Your task to perform on an android device: read, delete, or share a saved page in the chrome app Image 0: 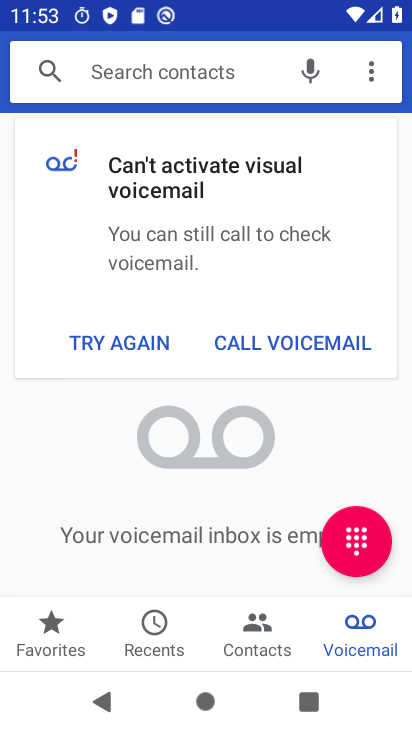
Step 0: press home button
Your task to perform on an android device: read, delete, or share a saved page in the chrome app Image 1: 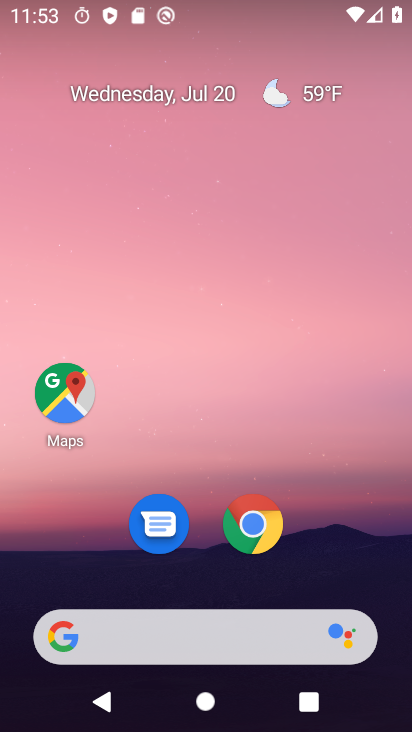
Step 1: click (232, 525)
Your task to perform on an android device: read, delete, or share a saved page in the chrome app Image 2: 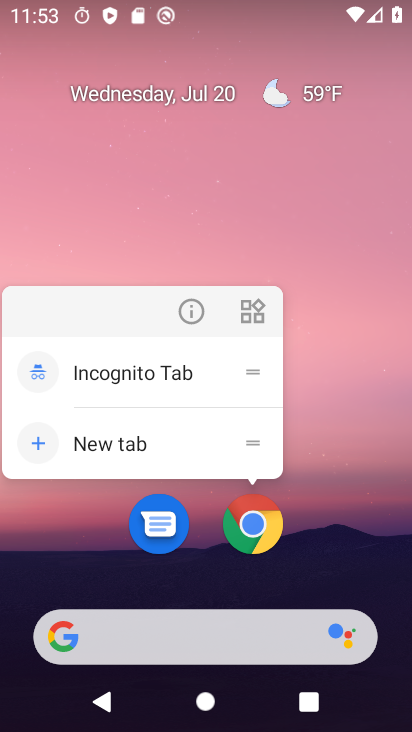
Step 2: click (241, 522)
Your task to perform on an android device: read, delete, or share a saved page in the chrome app Image 3: 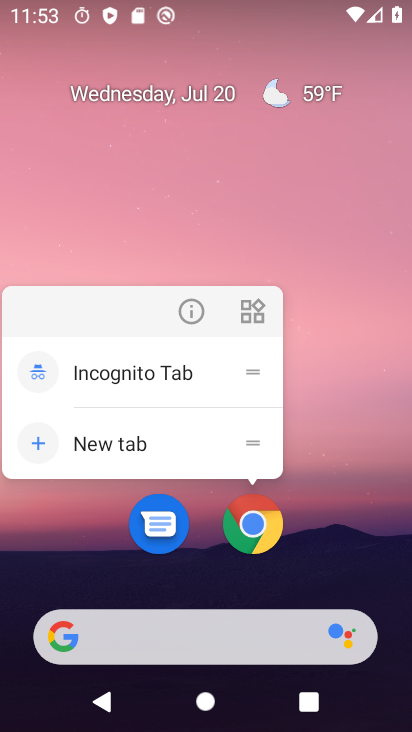
Step 3: click (257, 525)
Your task to perform on an android device: read, delete, or share a saved page in the chrome app Image 4: 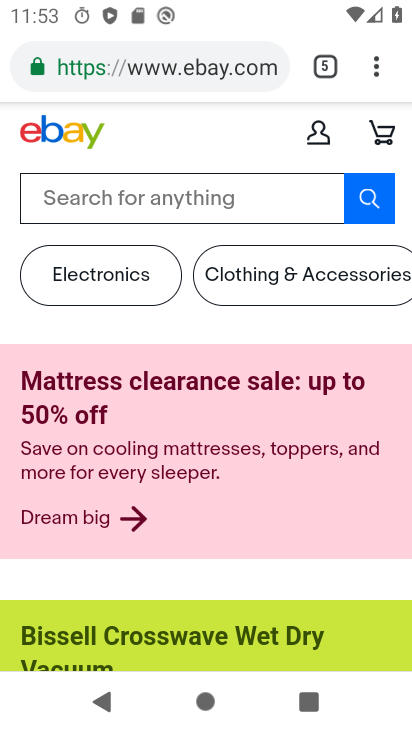
Step 4: drag from (376, 56) to (165, 428)
Your task to perform on an android device: read, delete, or share a saved page in the chrome app Image 5: 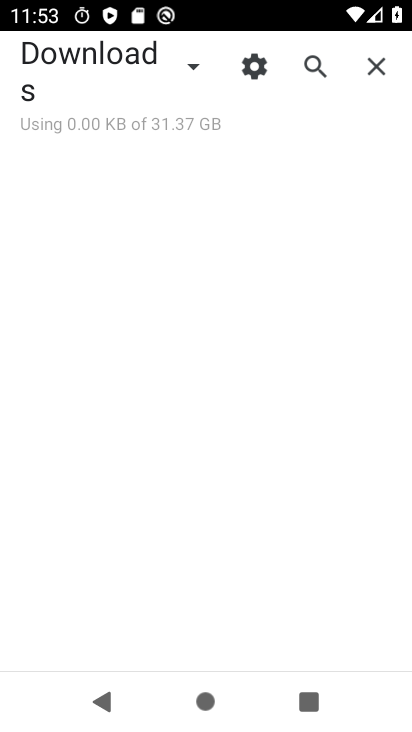
Step 5: click (151, 59)
Your task to perform on an android device: read, delete, or share a saved page in the chrome app Image 6: 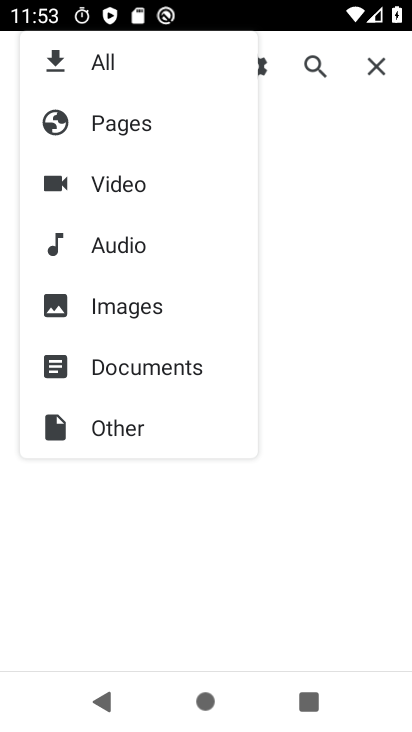
Step 6: click (135, 120)
Your task to perform on an android device: read, delete, or share a saved page in the chrome app Image 7: 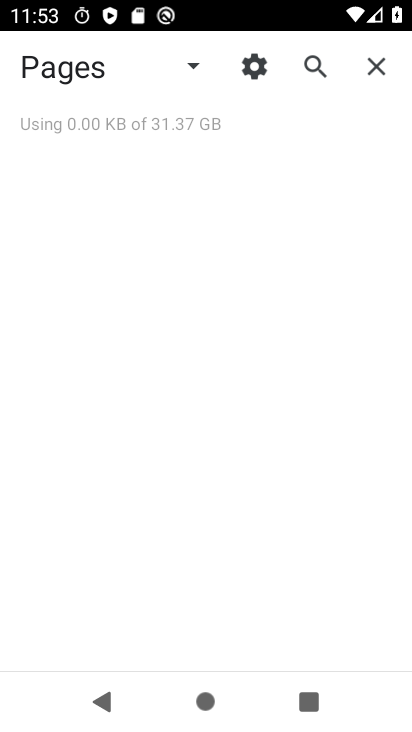
Step 7: task complete